Your task to perform on an android device: add a contact Image 0: 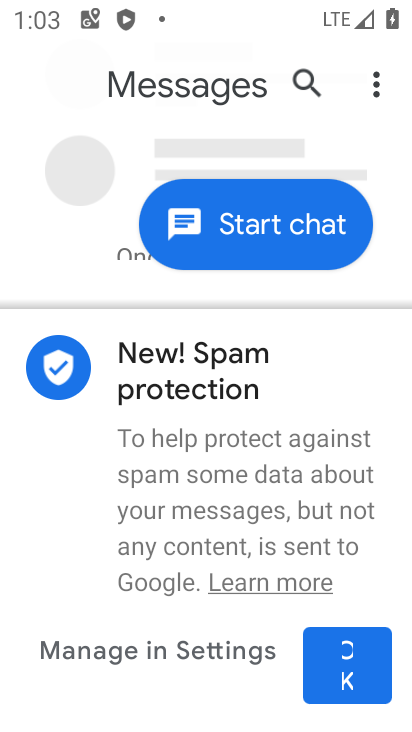
Step 0: press home button
Your task to perform on an android device: add a contact Image 1: 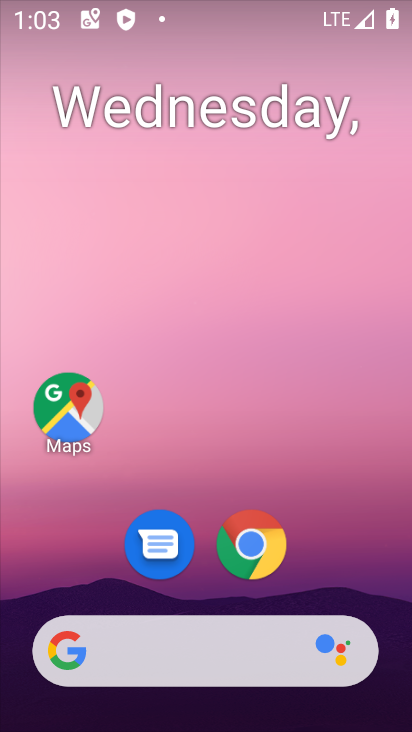
Step 1: drag from (385, 657) to (328, 0)
Your task to perform on an android device: add a contact Image 2: 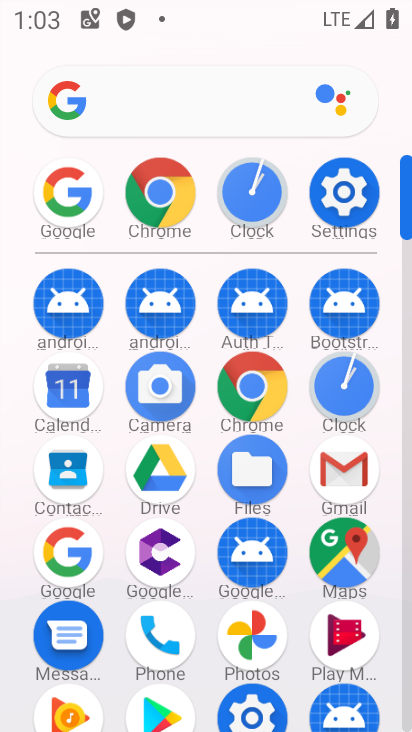
Step 2: click (88, 458)
Your task to perform on an android device: add a contact Image 3: 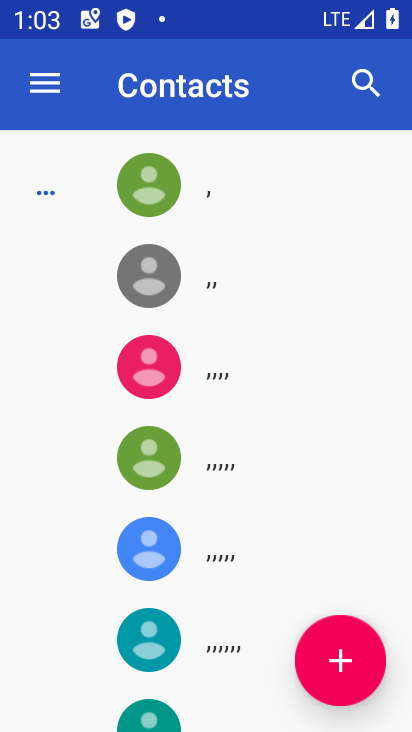
Step 3: click (330, 668)
Your task to perform on an android device: add a contact Image 4: 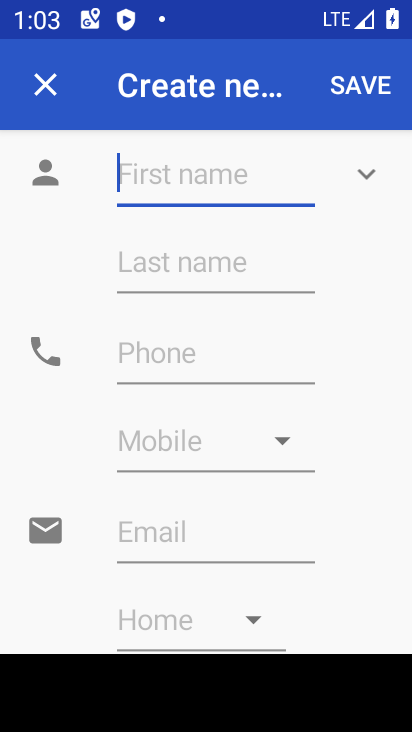
Step 4: type "gym"
Your task to perform on an android device: add a contact Image 5: 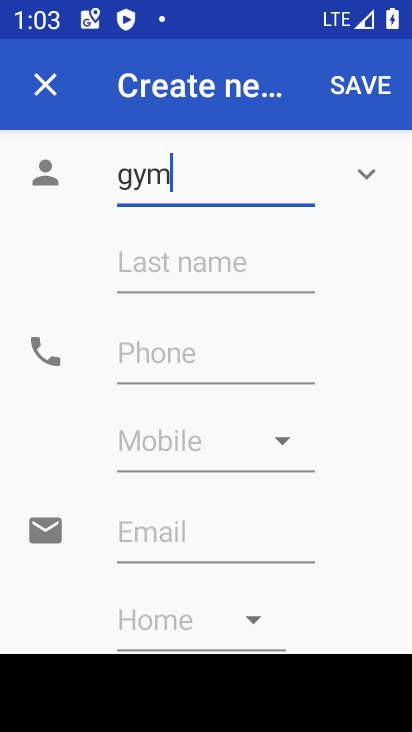
Step 5: click (357, 77)
Your task to perform on an android device: add a contact Image 6: 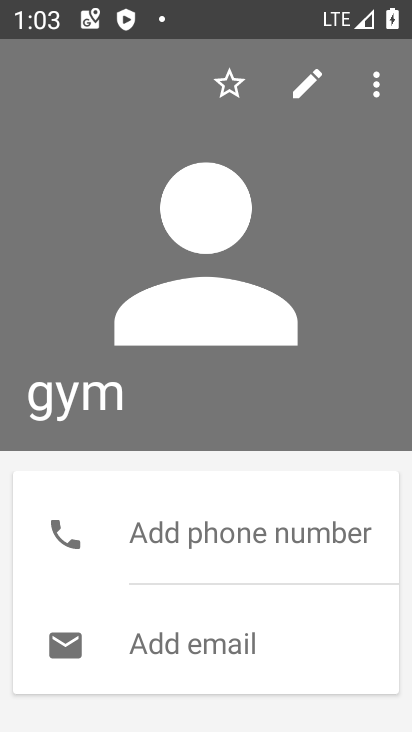
Step 6: task complete